Your task to perform on an android device: What's the weather today? Image 0: 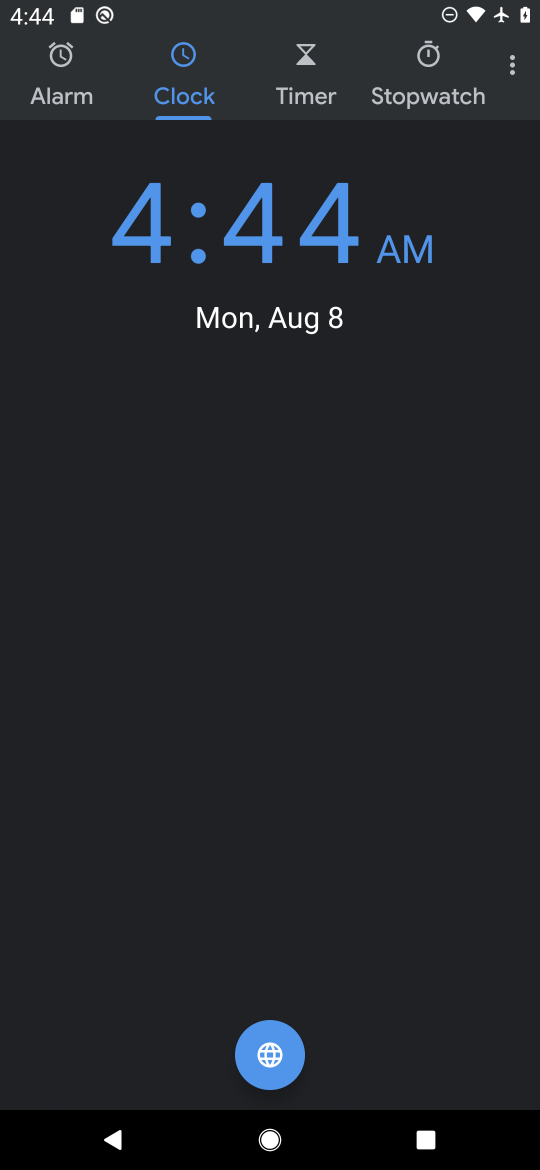
Step 0: press home button
Your task to perform on an android device: What's the weather today? Image 1: 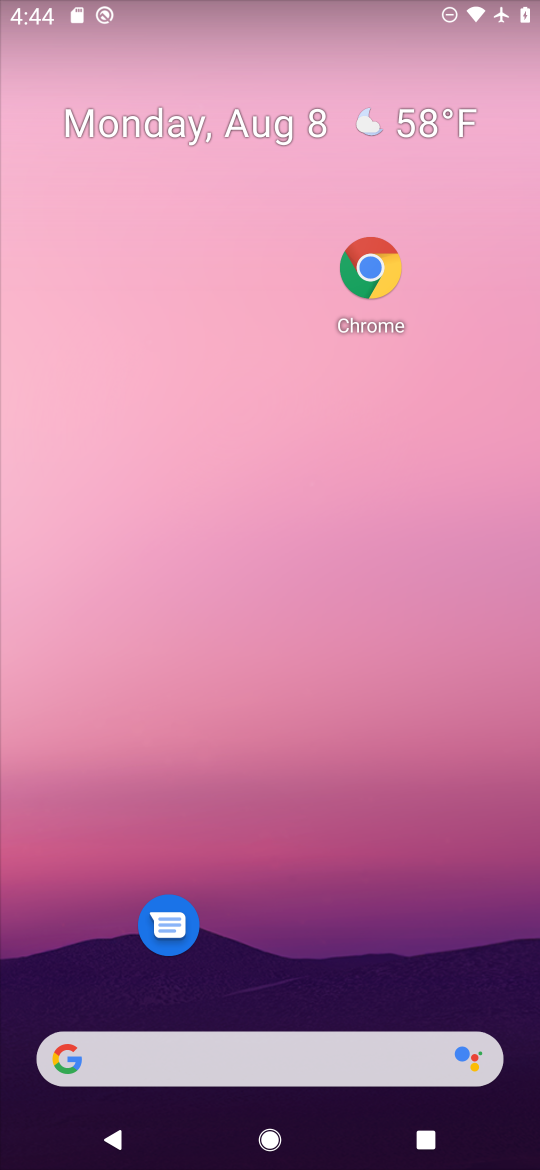
Step 1: drag from (307, 804) to (291, 244)
Your task to perform on an android device: What's the weather today? Image 2: 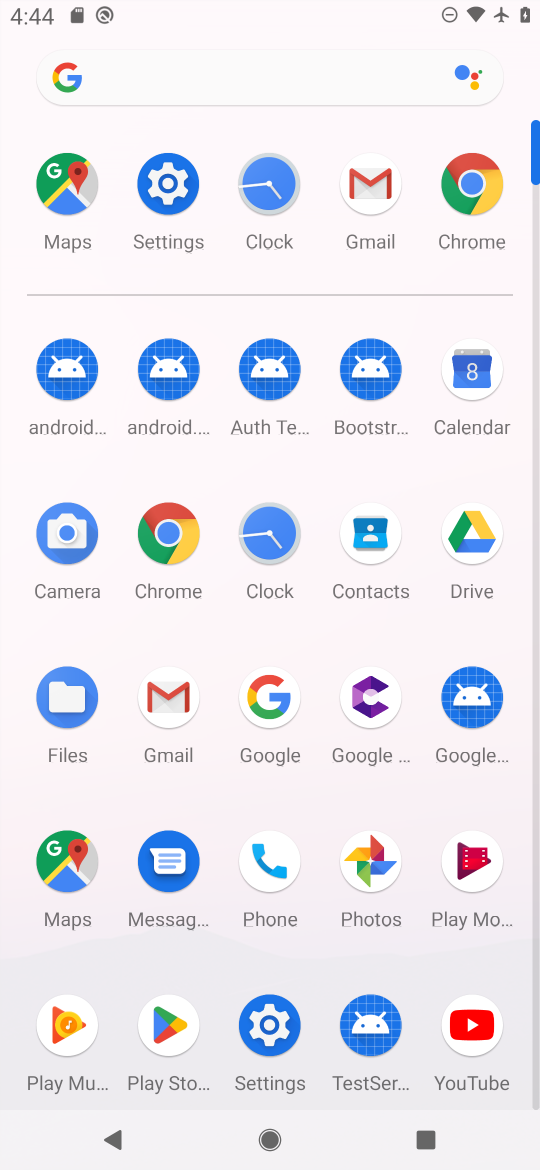
Step 2: click (260, 686)
Your task to perform on an android device: What's the weather today? Image 3: 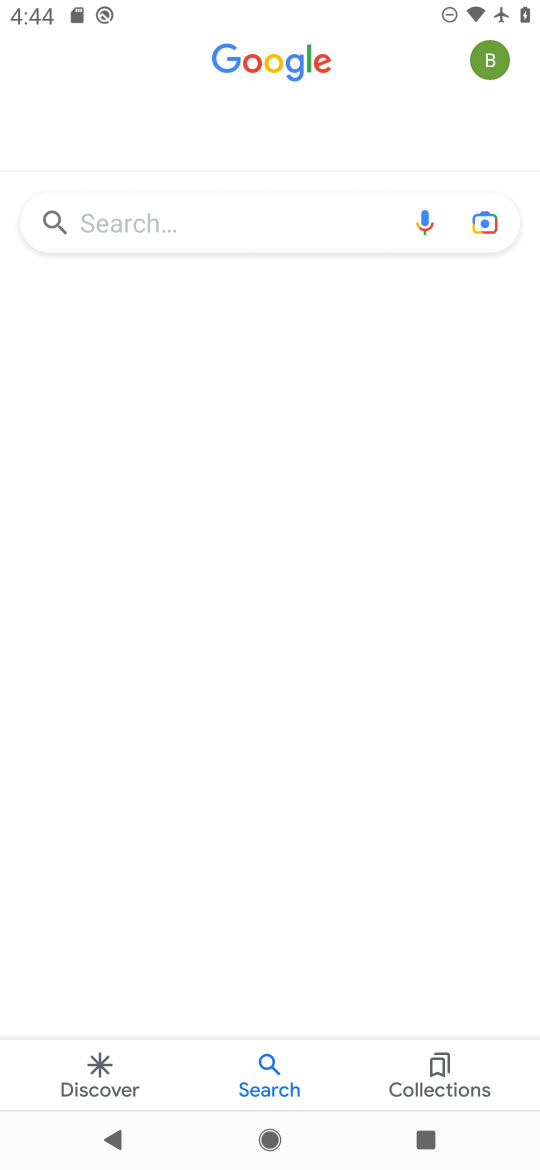
Step 3: click (236, 232)
Your task to perform on an android device: What's the weather today? Image 4: 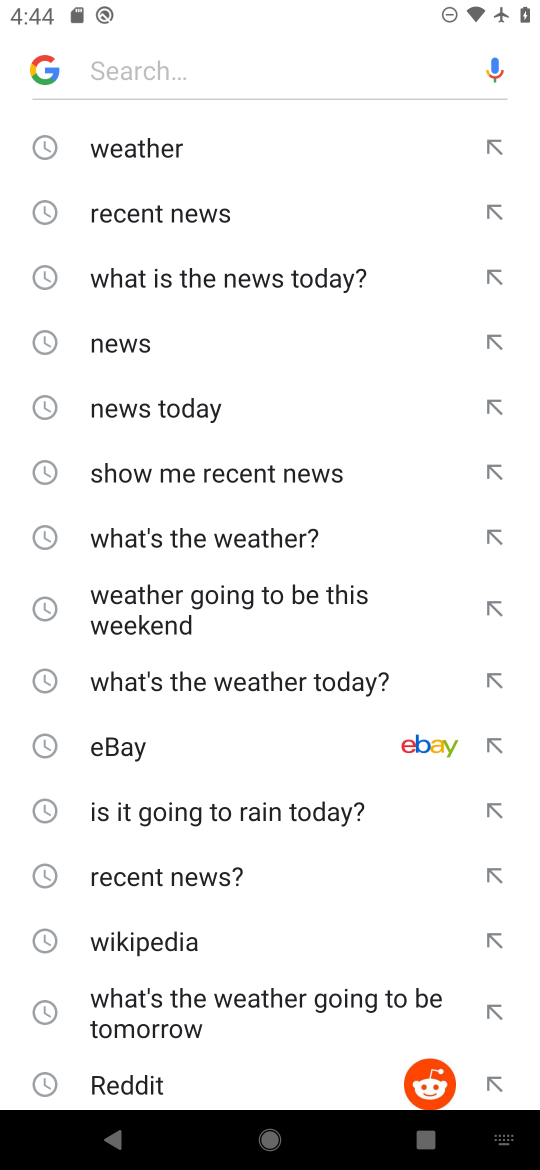
Step 4: click (125, 143)
Your task to perform on an android device: What's the weather today? Image 5: 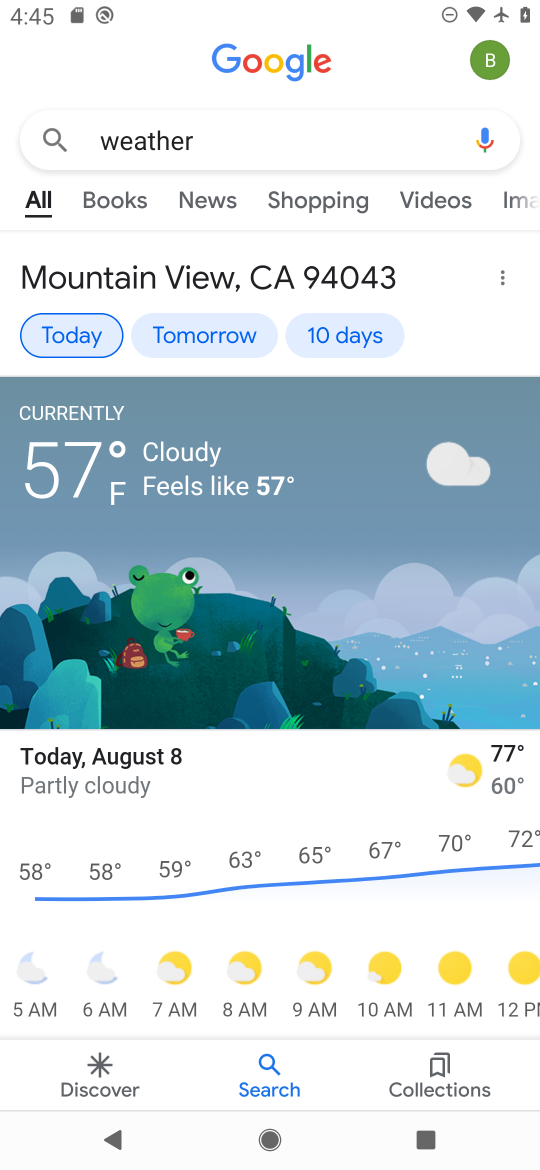
Step 5: click (81, 335)
Your task to perform on an android device: What's the weather today? Image 6: 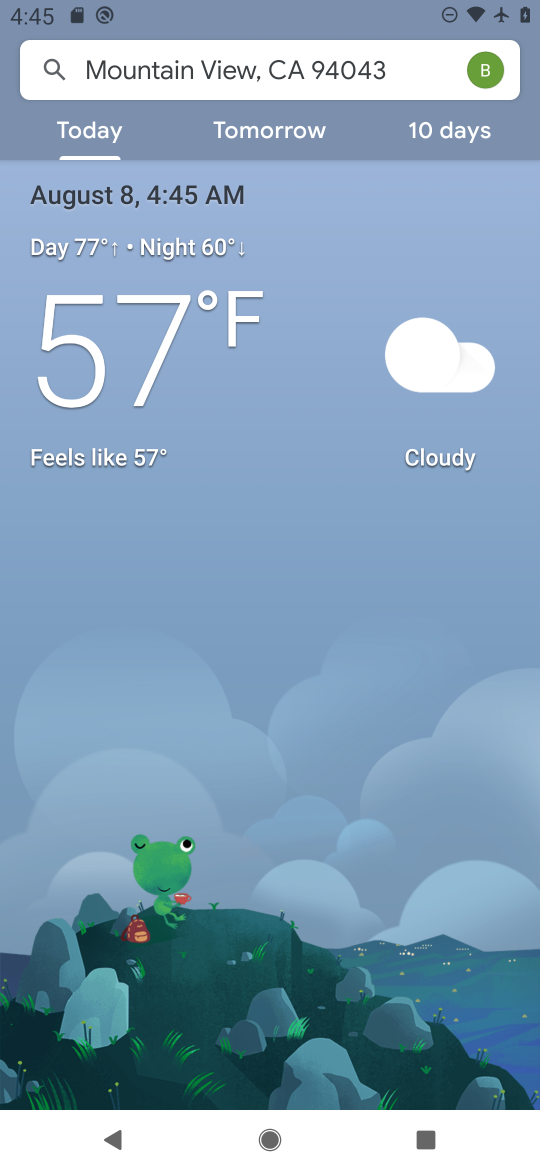
Step 6: task complete